Your task to perform on an android device: Add bose quietcomfort 35 to the cart on ebay.com, then select checkout. Image 0: 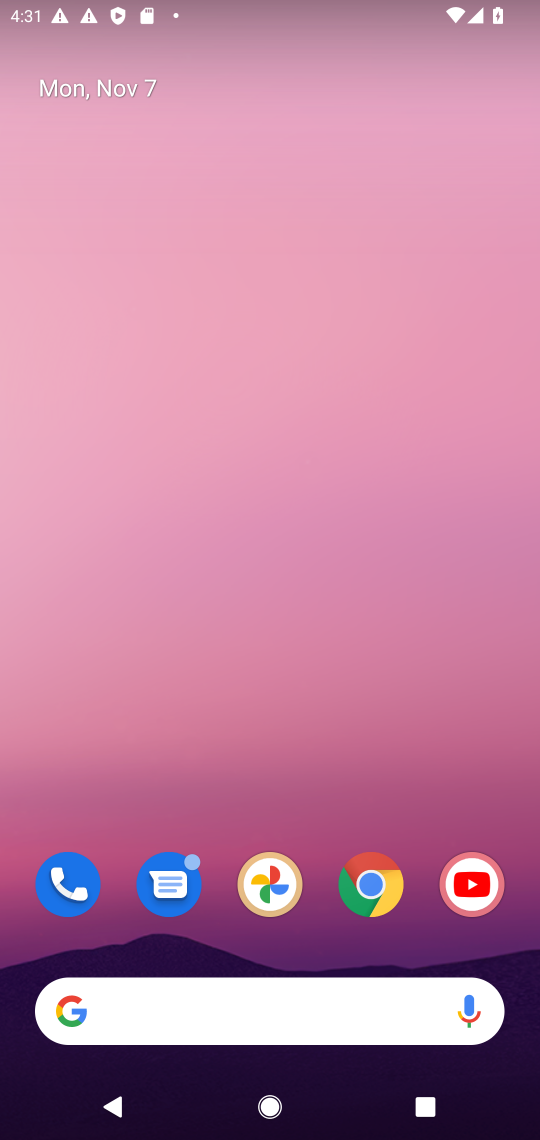
Step 0: drag from (218, 964) to (213, 98)
Your task to perform on an android device: Add bose quietcomfort 35 to the cart on ebay.com, then select checkout. Image 1: 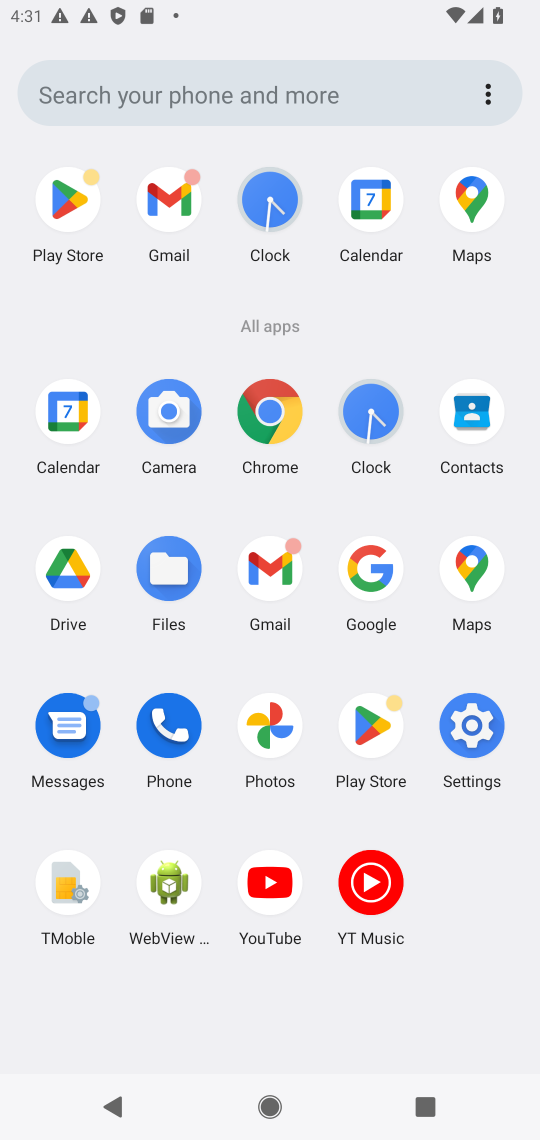
Step 1: click (264, 418)
Your task to perform on an android device: Add bose quietcomfort 35 to the cart on ebay.com, then select checkout. Image 2: 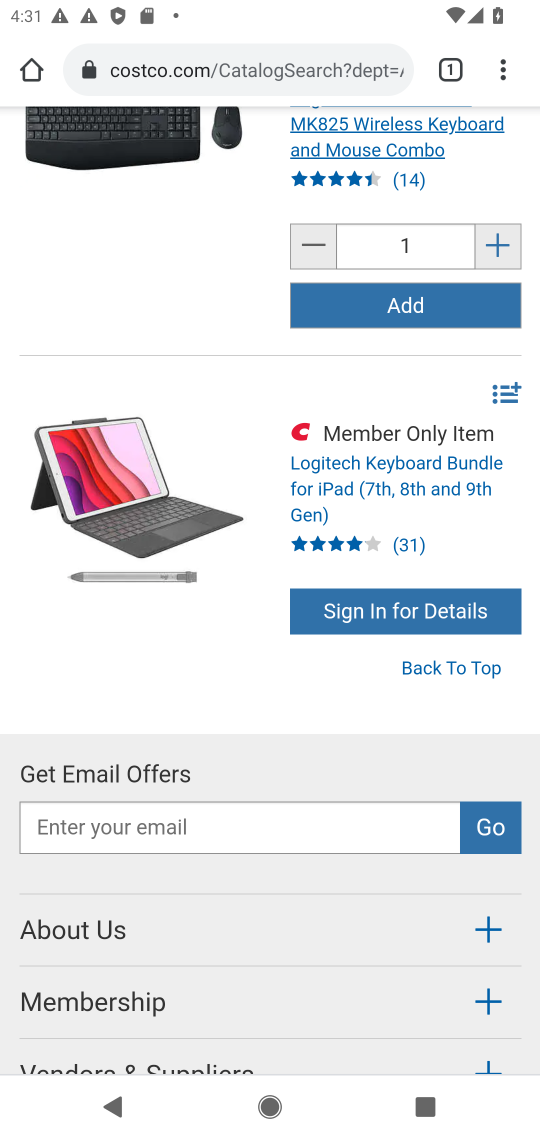
Step 2: click (311, 66)
Your task to perform on an android device: Add bose quietcomfort 35 to the cart on ebay.com, then select checkout. Image 3: 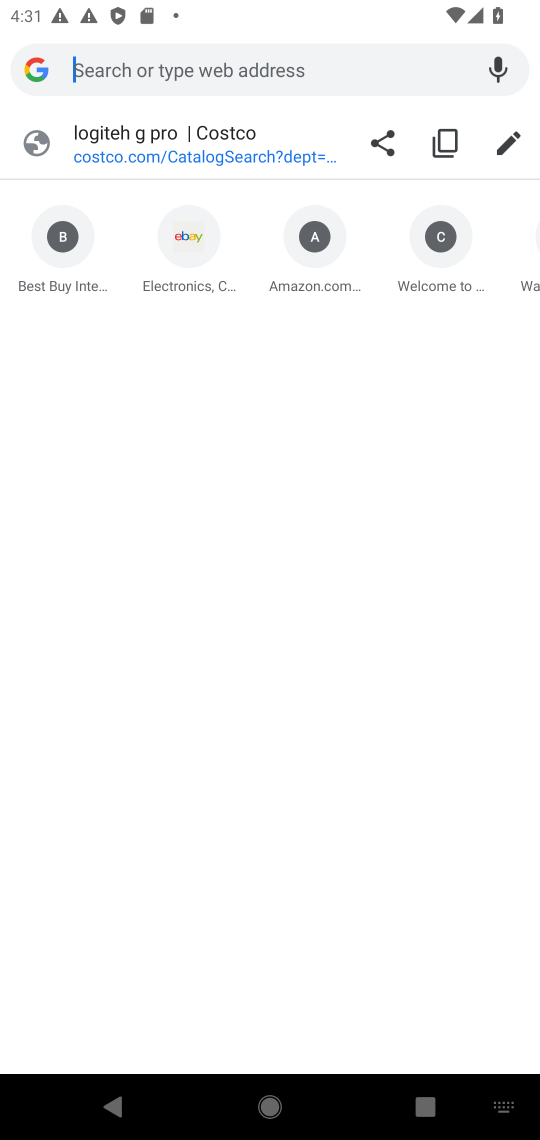
Step 3: type "ebay.com"
Your task to perform on an android device: Add bose quietcomfort 35 to the cart on ebay.com, then select checkout. Image 4: 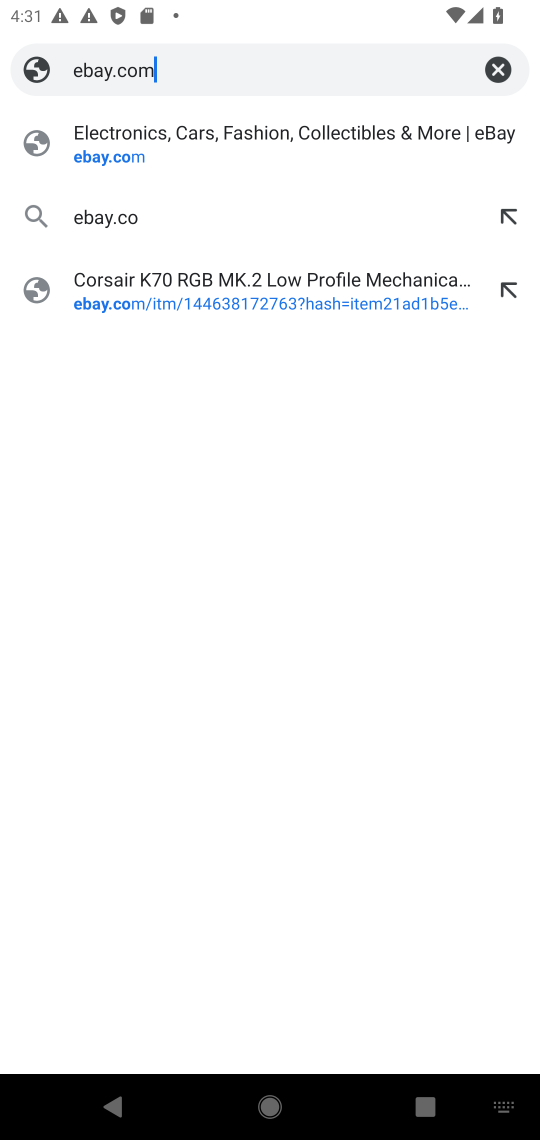
Step 4: press enter
Your task to perform on an android device: Add bose quietcomfort 35 to the cart on ebay.com, then select checkout. Image 5: 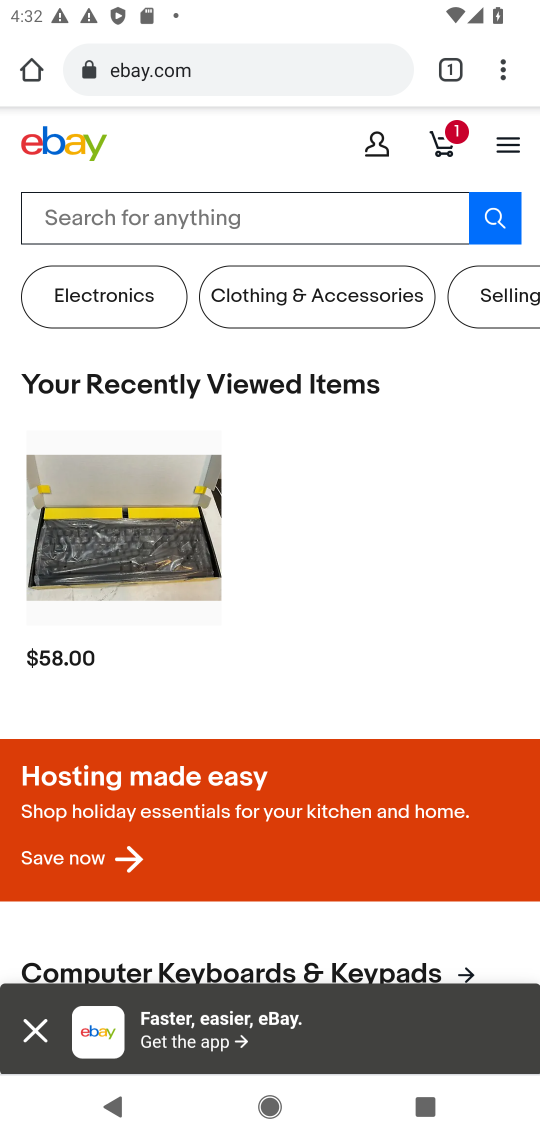
Step 5: click (284, 207)
Your task to perform on an android device: Add bose quietcomfort 35 to the cart on ebay.com, then select checkout. Image 6: 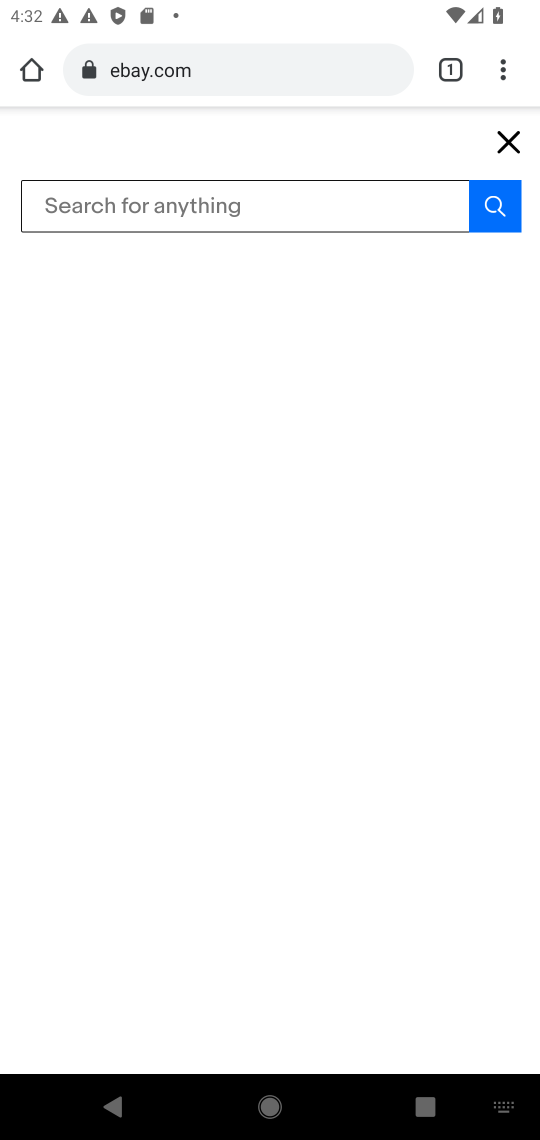
Step 6: type "bose quietcomfort 35"
Your task to perform on an android device: Add bose quietcomfort 35 to the cart on ebay.com, then select checkout. Image 7: 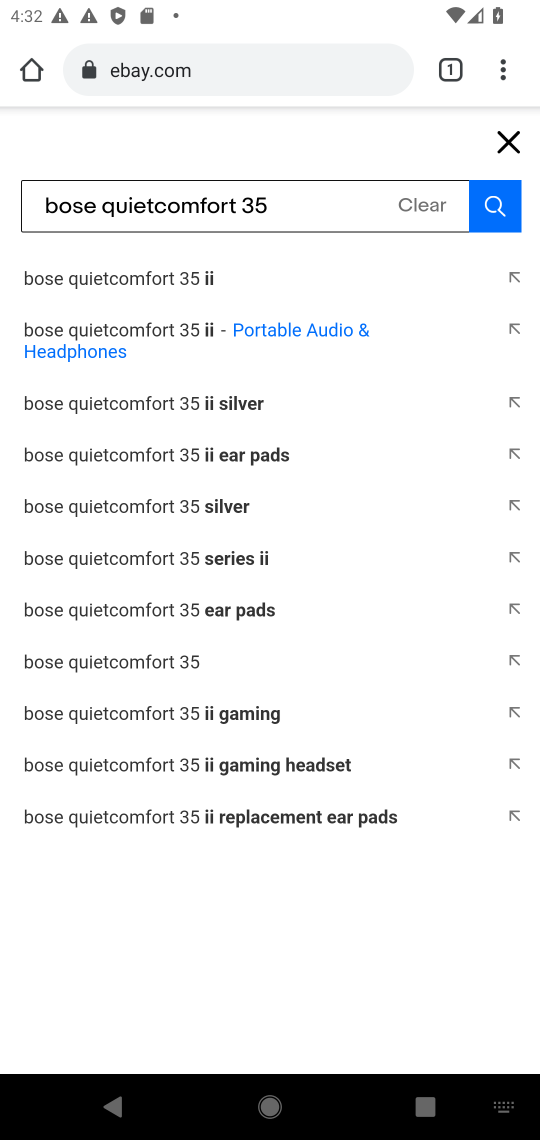
Step 7: press enter
Your task to perform on an android device: Add bose quietcomfort 35 to the cart on ebay.com, then select checkout. Image 8: 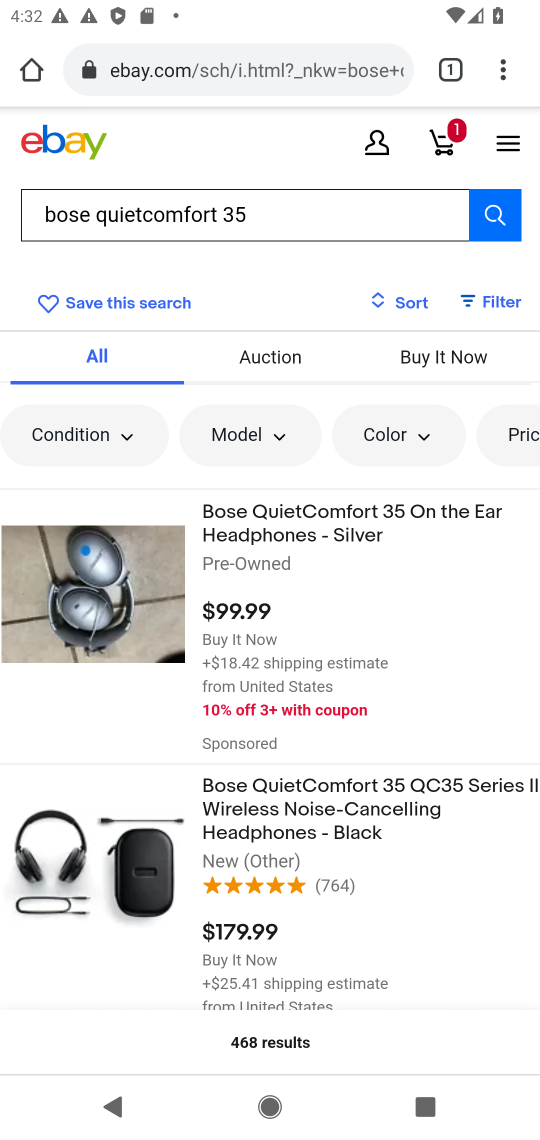
Step 8: click (102, 575)
Your task to perform on an android device: Add bose quietcomfort 35 to the cart on ebay.com, then select checkout. Image 9: 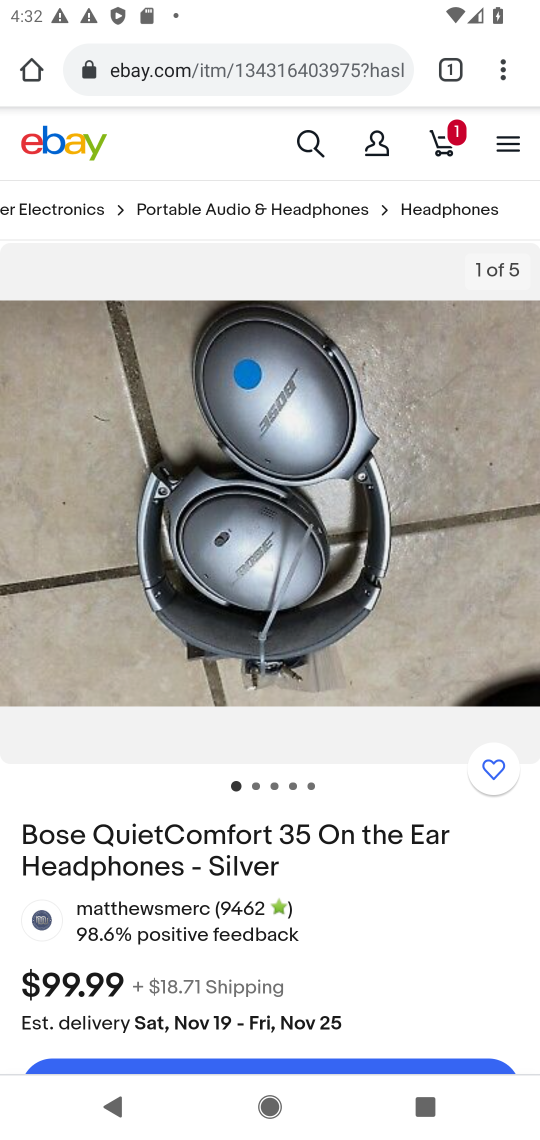
Step 9: drag from (307, 962) to (333, 461)
Your task to perform on an android device: Add bose quietcomfort 35 to the cart on ebay.com, then select checkout. Image 10: 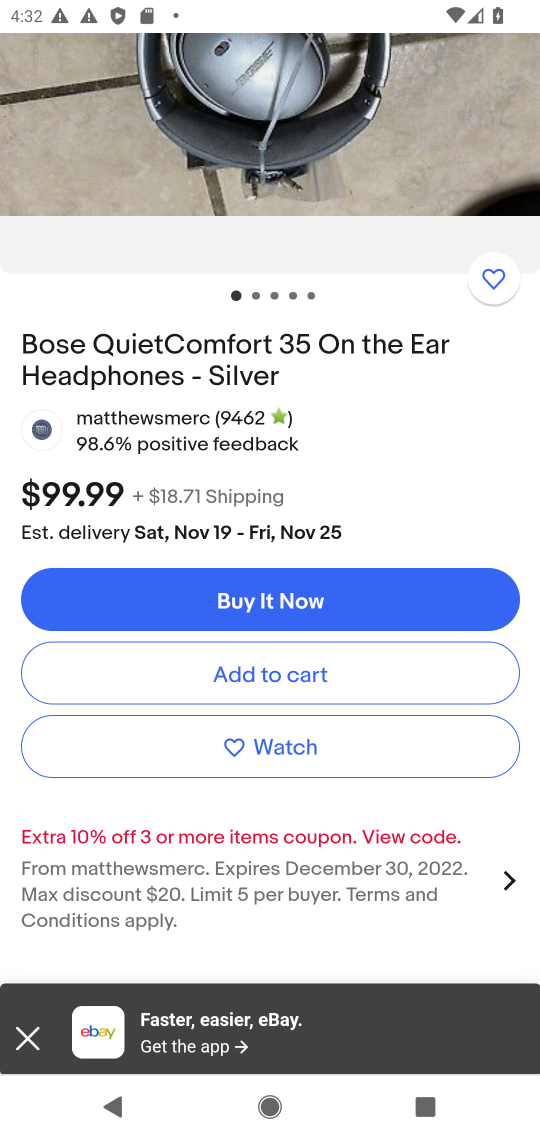
Step 10: click (282, 669)
Your task to perform on an android device: Add bose quietcomfort 35 to the cart on ebay.com, then select checkout. Image 11: 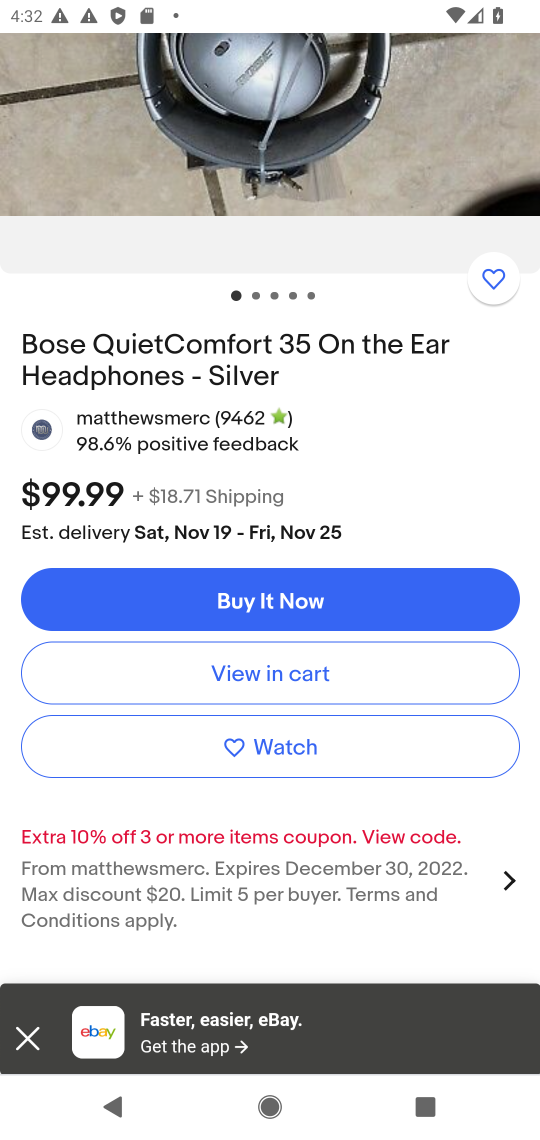
Step 11: click (282, 669)
Your task to perform on an android device: Add bose quietcomfort 35 to the cart on ebay.com, then select checkout. Image 12: 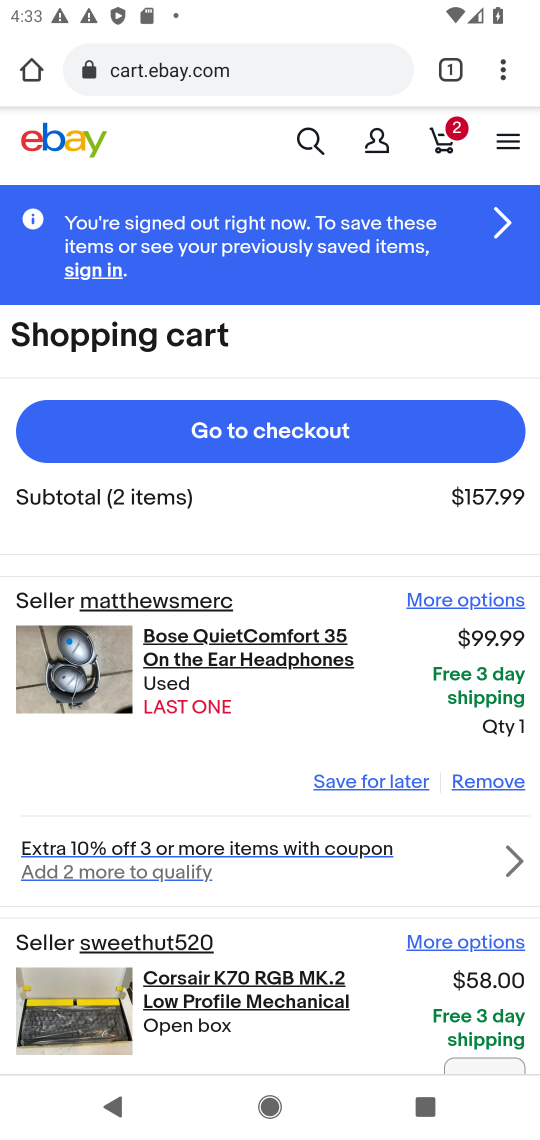
Step 12: click (375, 428)
Your task to perform on an android device: Add bose quietcomfort 35 to the cart on ebay.com, then select checkout. Image 13: 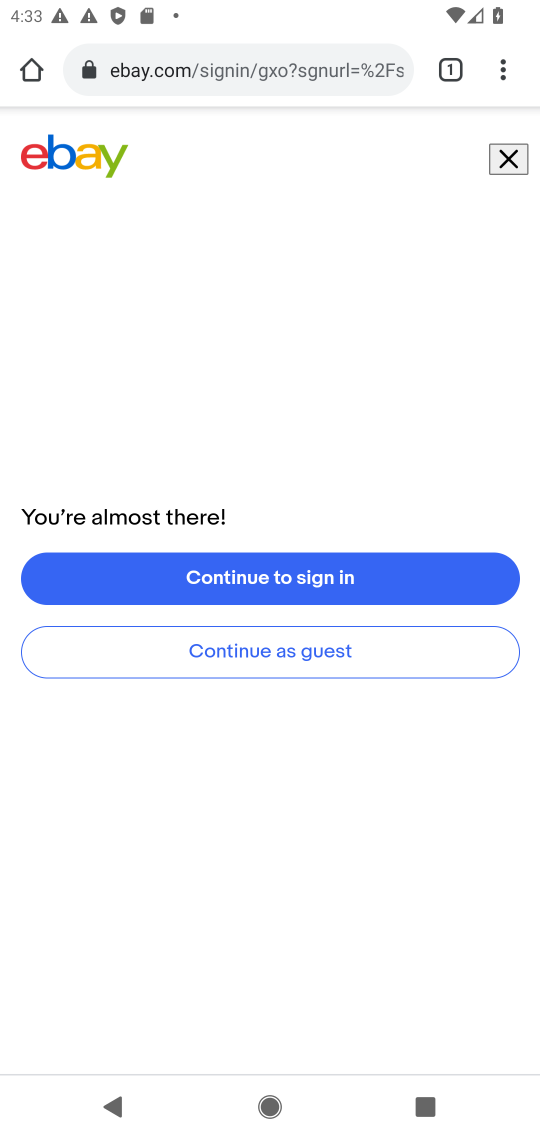
Step 13: task complete